Your task to perform on an android device: move an email to a new category in the gmail app Image 0: 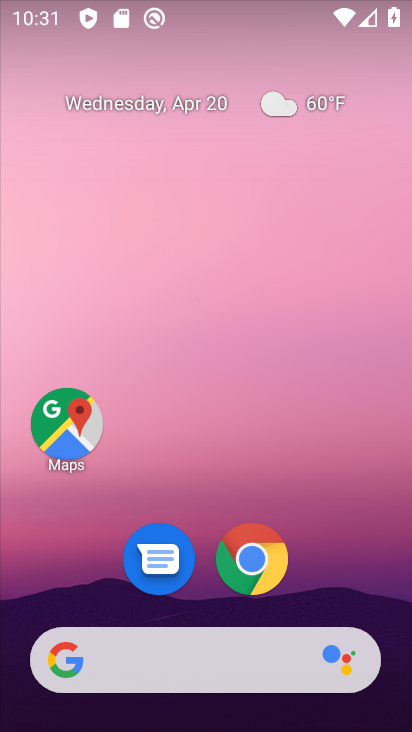
Step 0: drag from (221, 707) to (179, 125)
Your task to perform on an android device: move an email to a new category in the gmail app Image 1: 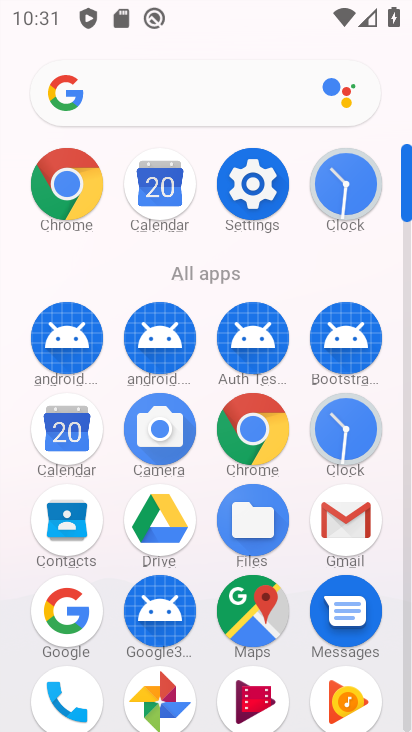
Step 1: click (348, 522)
Your task to perform on an android device: move an email to a new category in the gmail app Image 2: 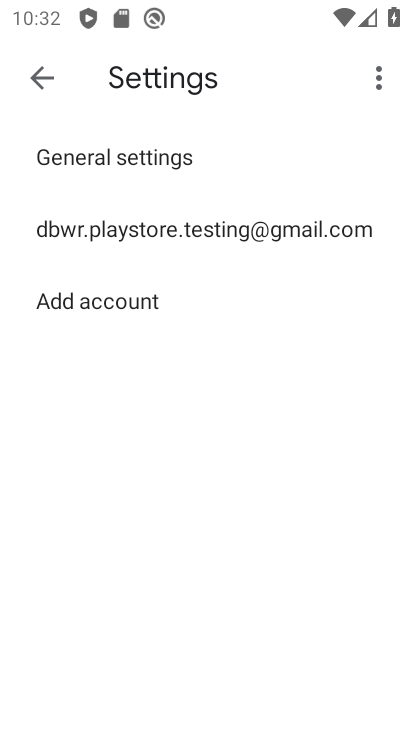
Step 2: click (258, 225)
Your task to perform on an android device: move an email to a new category in the gmail app Image 3: 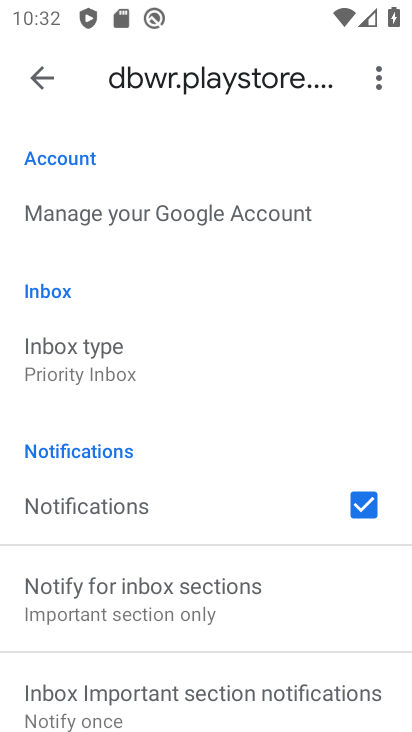
Step 3: click (34, 74)
Your task to perform on an android device: move an email to a new category in the gmail app Image 4: 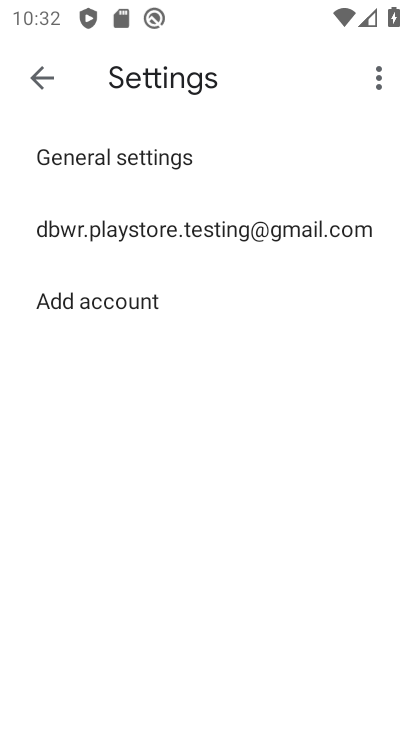
Step 4: click (34, 74)
Your task to perform on an android device: move an email to a new category in the gmail app Image 5: 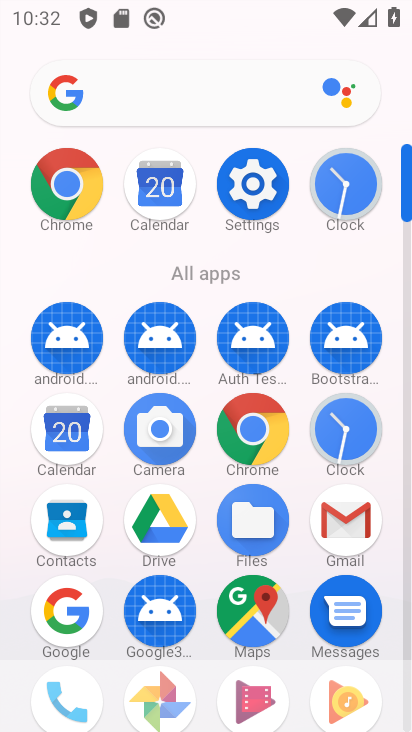
Step 5: click (344, 520)
Your task to perform on an android device: move an email to a new category in the gmail app Image 6: 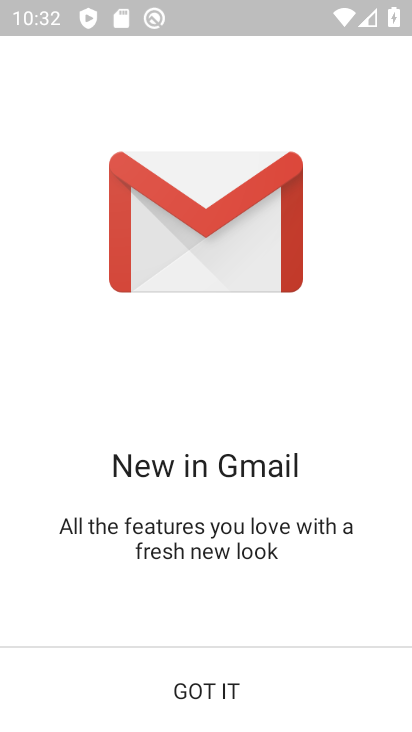
Step 6: click (205, 685)
Your task to perform on an android device: move an email to a new category in the gmail app Image 7: 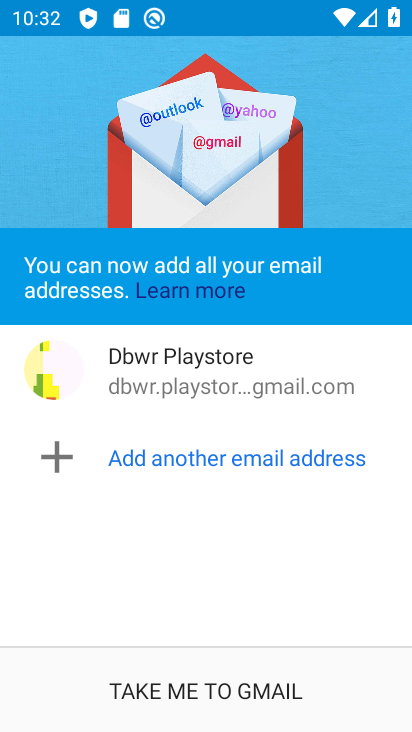
Step 7: click (205, 685)
Your task to perform on an android device: move an email to a new category in the gmail app Image 8: 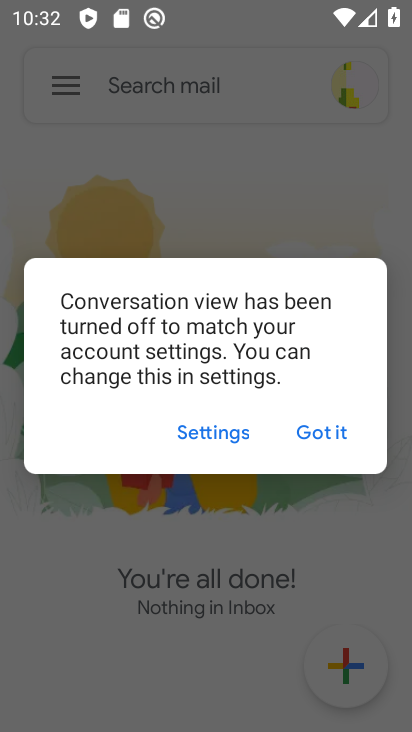
Step 8: click (327, 429)
Your task to perform on an android device: move an email to a new category in the gmail app Image 9: 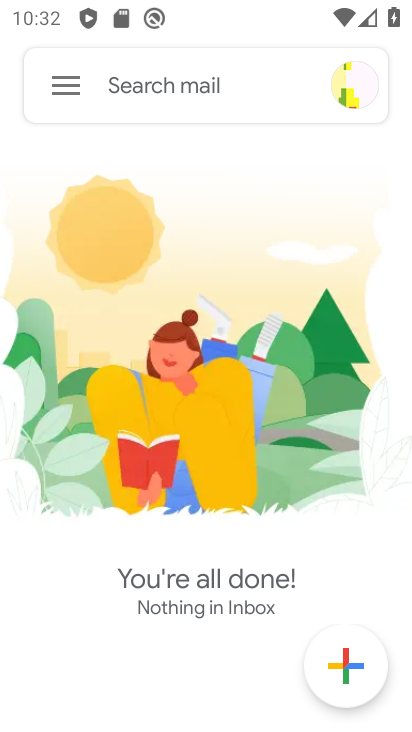
Step 9: task complete